Your task to perform on an android device: Go to settings Image 0: 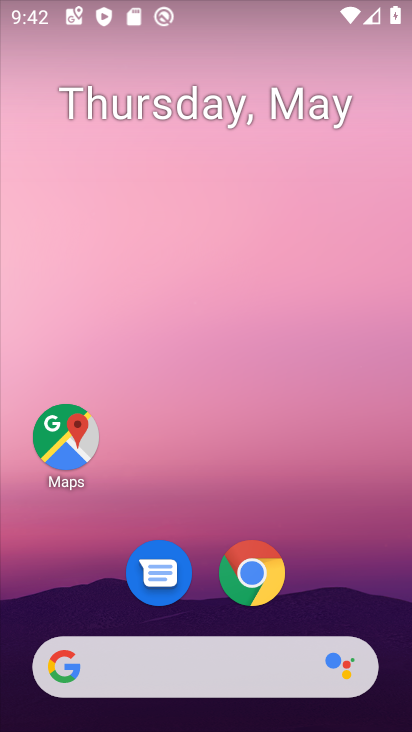
Step 0: drag from (200, 623) to (198, 178)
Your task to perform on an android device: Go to settings Image 1: 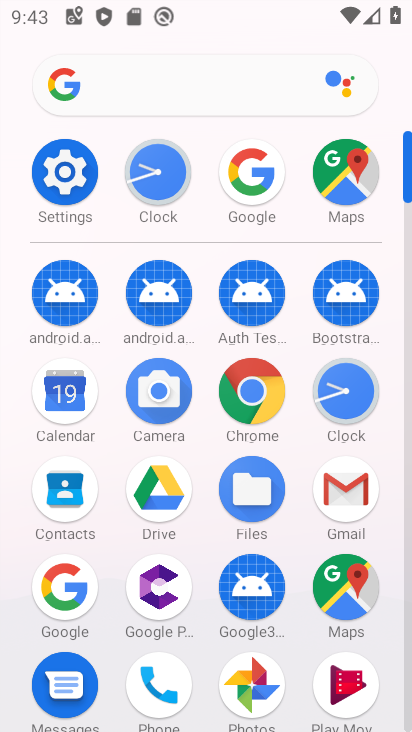
Step 1: click (82, 152)
Your task to perform on an android device: Go to settings Image 2: 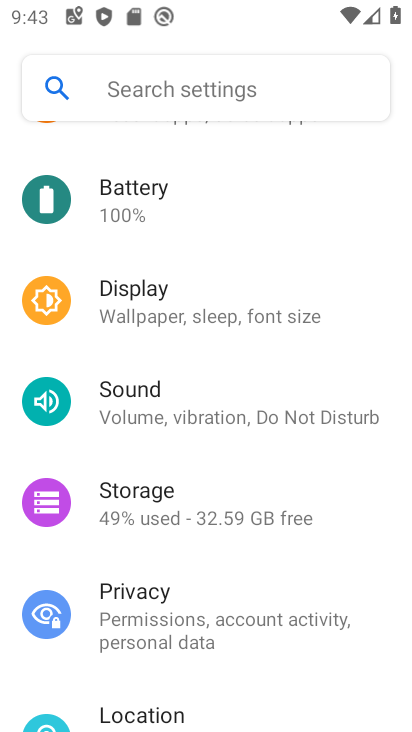
Step 2: task complete